Your task to perform on an android device: snooze an email in the gmail app Image 0: 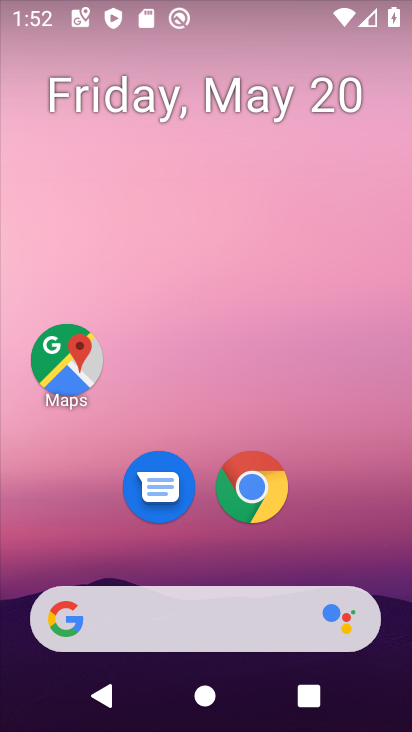
Step 0: drag from (386, 561) to (319, 1)
Your task to perform on an android device: snooze an email in the gmail app Image 1: 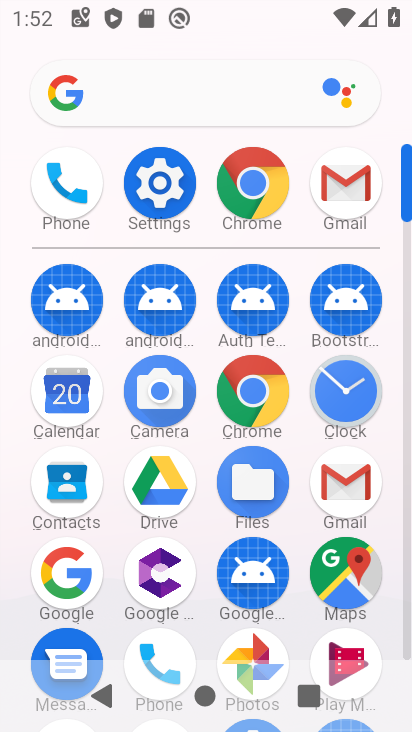
Step 1: click (343, 204)
Your task to perform on an android device: snooze an email in the gmail app Image 2: 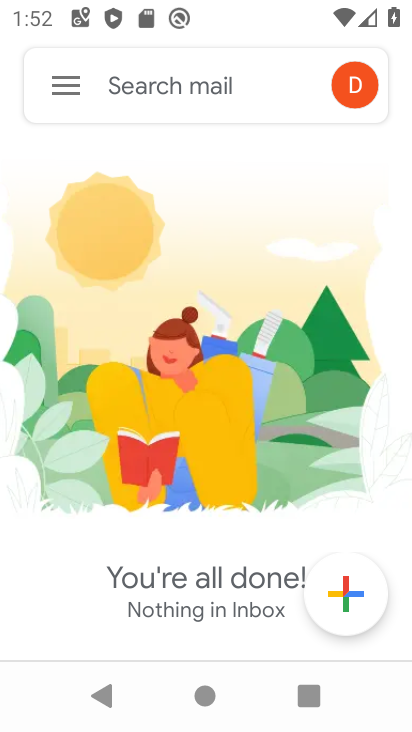
Step 2: task complete